Your task to perform on an android device: toggle translation in the chrome app Image 0: 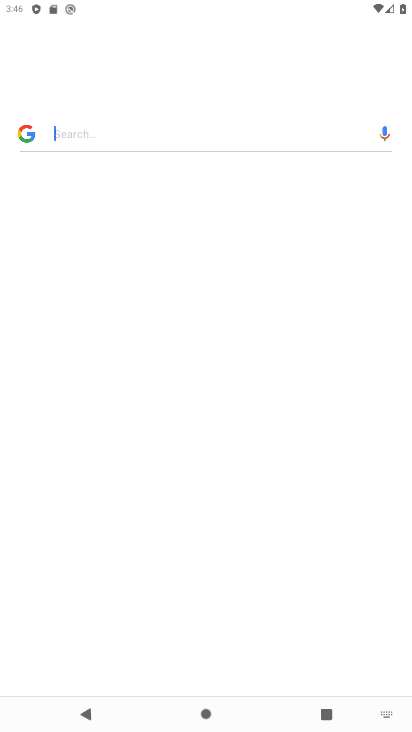
Step 0: click (388, 629)
Your task to perform on an android device: toggle translation in the chrome app Image 1: 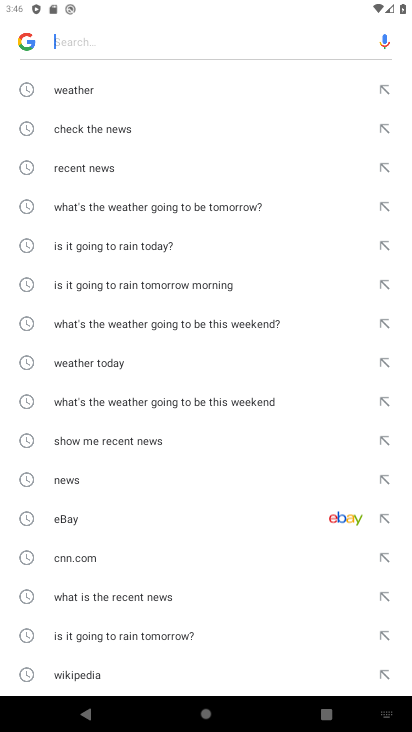
Step 1: press home button
Your task to perform on an android device: toggle translation in the chrome app Image 2: 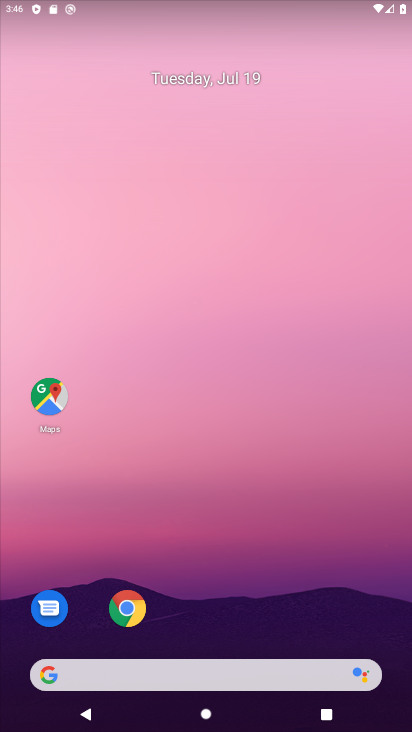
Step 2: click (122, 613)
Your task to perform on an android device: toggle translation in the chrome app Image 3: 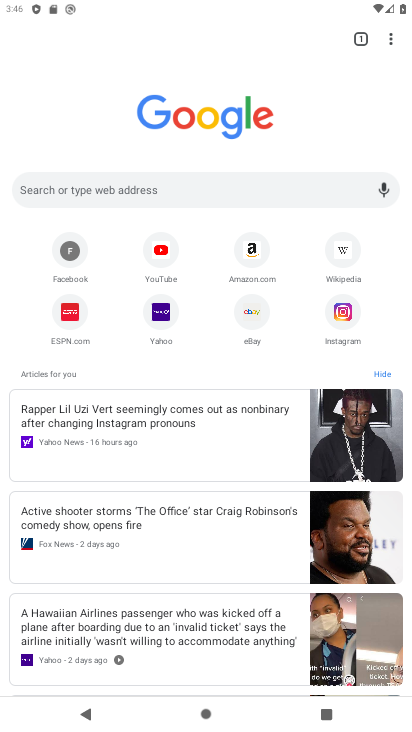
Step 3: click (389, 35)
Your task to perform on an android device: toggle translation in the chrome app Image 4: 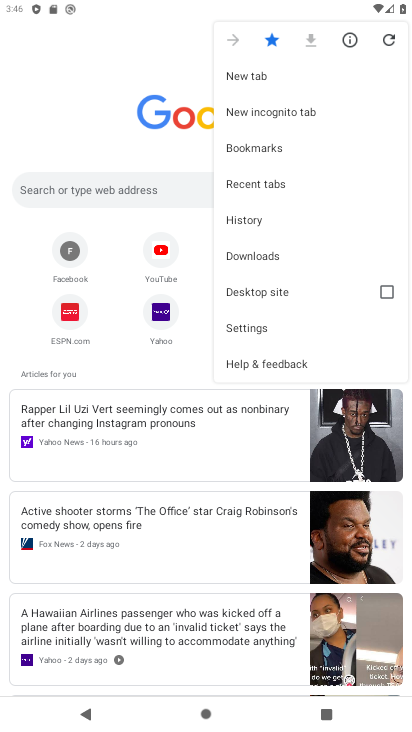
Step 4: click (240, 330)
Your task to perform on an android device: toggle translation in the chrome app Image 5: 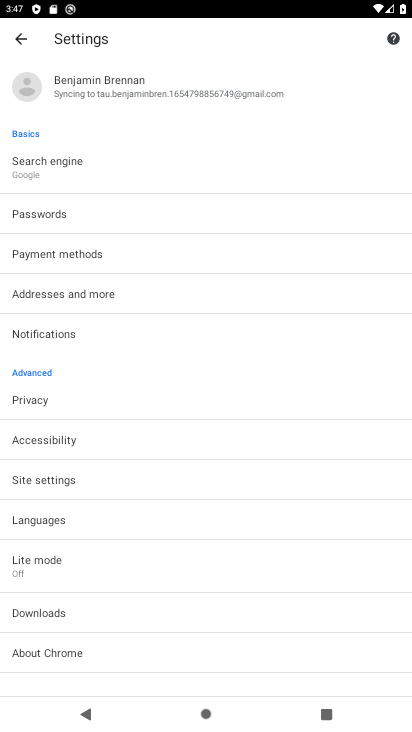
Step 5: click (151, 521)
Your task to perform on an android device: toggle translation in the chrome app Image 6: 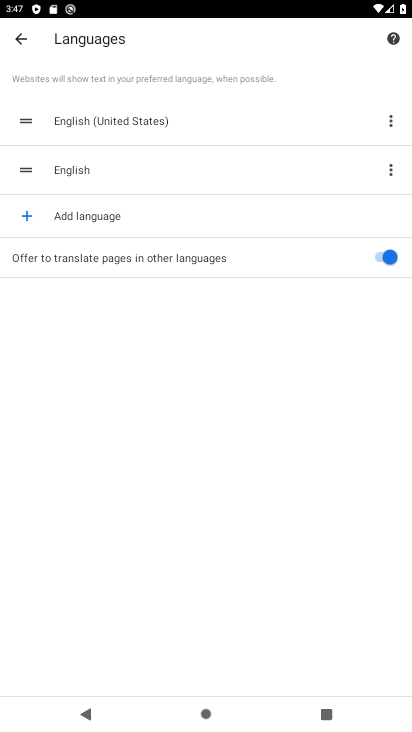
Step 6: click (386, 268)
Your task to perform on an android device: toggle translation in the chrome app Image 7: 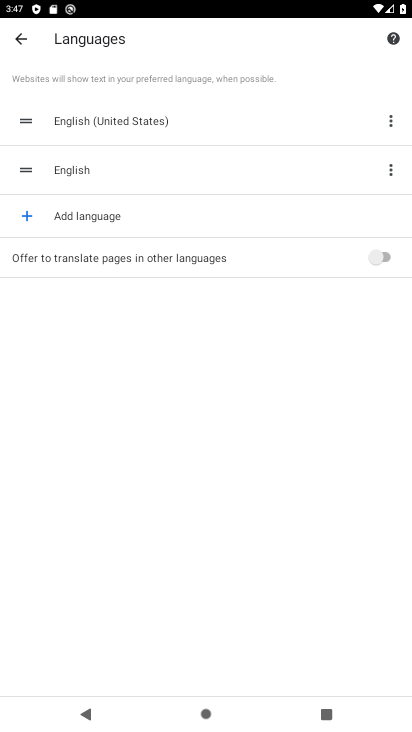
Step 7: task complete